Your task to perform on an android device: What is the news today? Image 0: 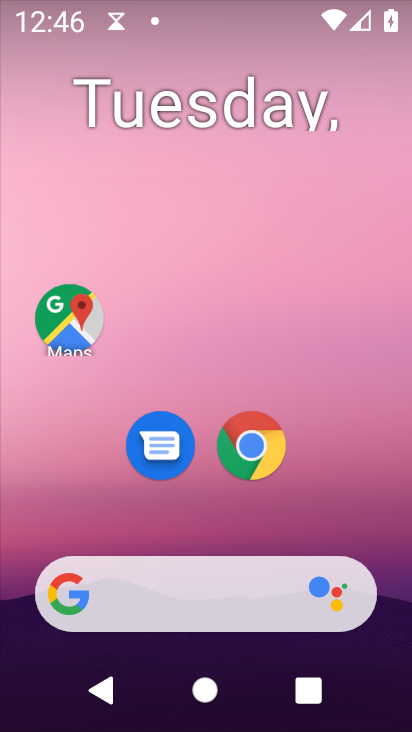
Step 0: drag from (238, 543) to (238, 13)
Your task to perform on an android device: What is the news today? Image 1: 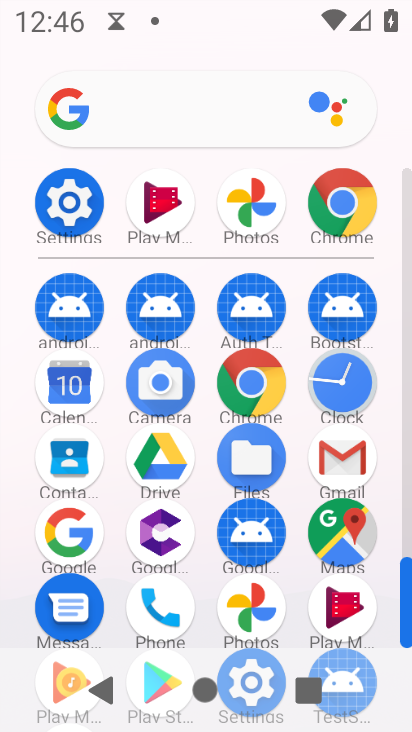
Step 1: click (245, 391)
Your task to perform on an android device: What is the news today? Image 2: 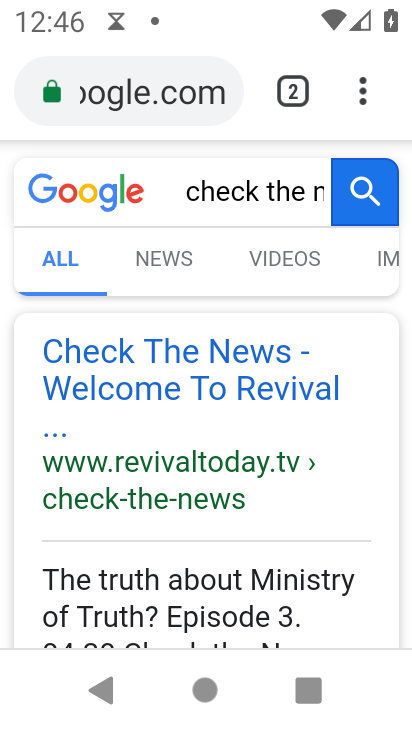
Step 2: click (216, 95)
Your task to perform on an android device: What is the news today? Image 3: 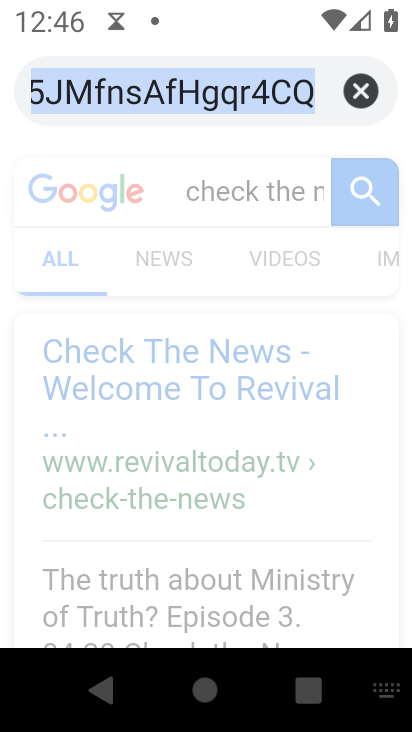
Step 3: click (351, 92)
Your task to perform on an android device: What is the news today? Image 4: 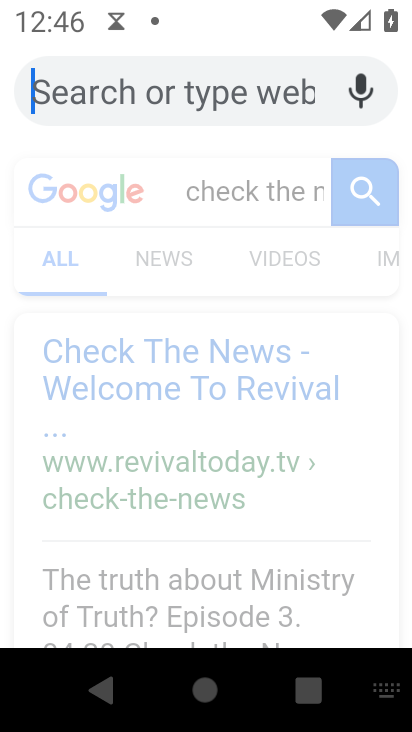
Step 4: type "news today"
Your task to perform on an android device: What is the news today? Image 5: 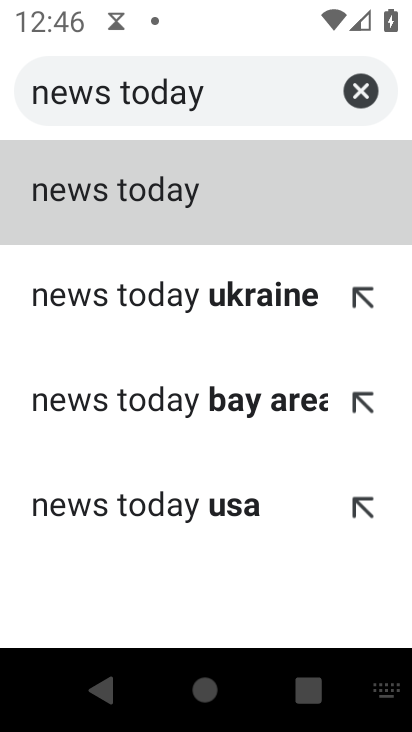
Step 5: click (107, 187)
Your task to perform on an android device: What is the news today? Image 6: 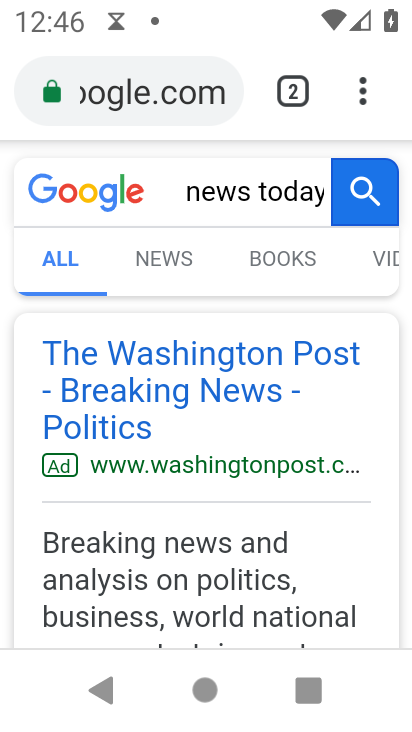
Step 6: task complete